Your task to perform on an android device: empty trash in the gmail app Image 0: 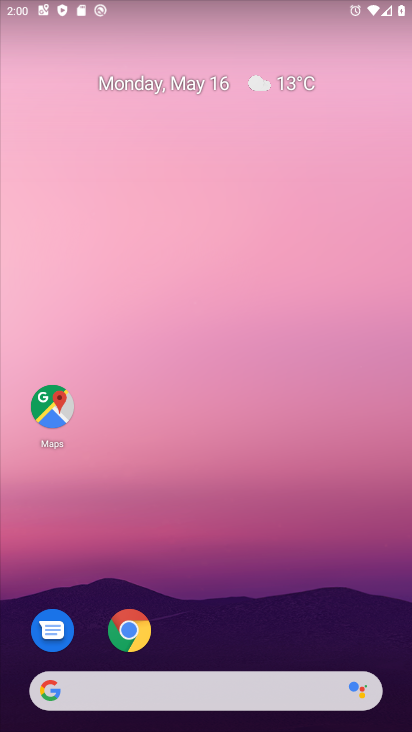
Step 0: click (275, 597)
Your task to perform on an android device: empty trash in the gmail app Image 1: 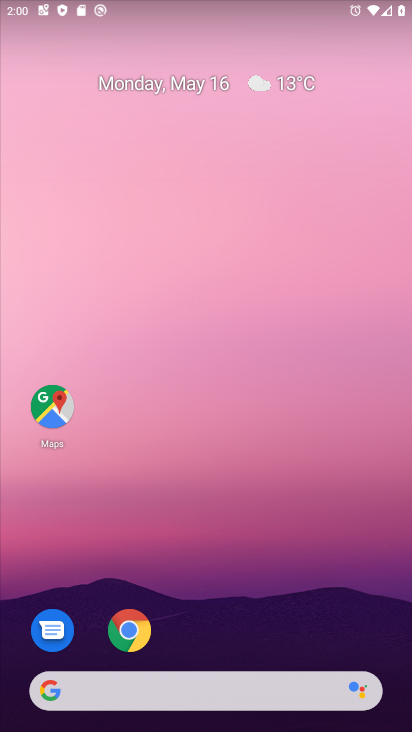
Step 1: click (275, 597)
Your task to perform on an android device: empty trash in the gmail app Image 2: 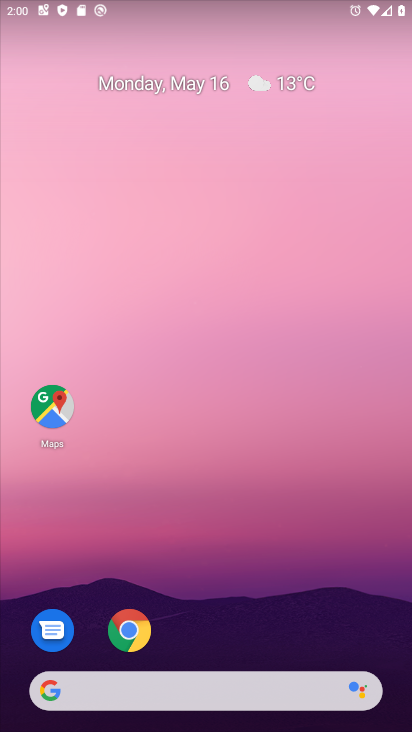
Step 2: drag from (318, 532) to (404, 93)
Your task to perform on an android device: empty trash in the gmail app Image 3: 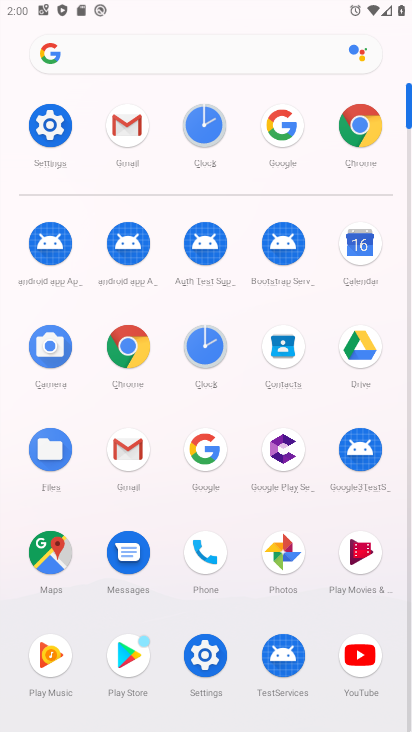
Step 3: click (125, 119)
Your task to perform on an android device: empty trash in the gmail app Image 4: 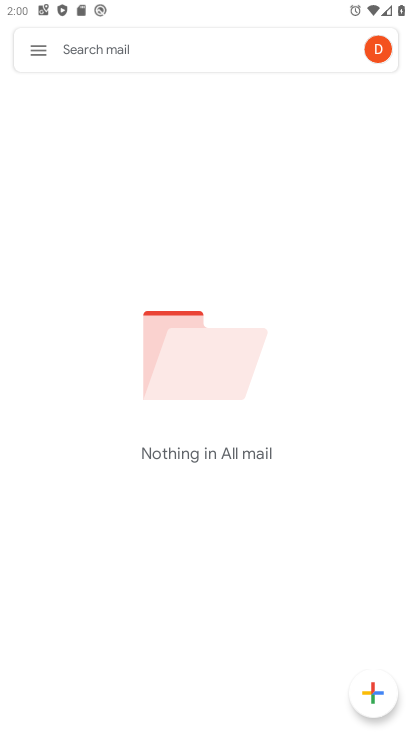
Step 4: click (37, 31)
Your task to perform on an android device: empty trash in the gmail app Image 5: 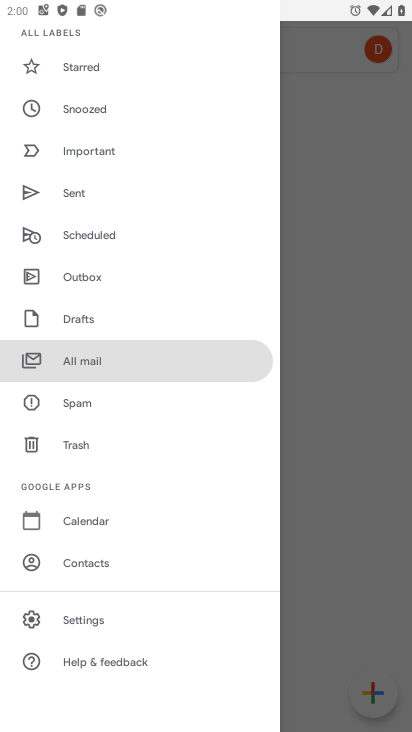
Step 5: click (81, 438)
Your task to perform on an android device: empty trash in the gmail app Image 6: 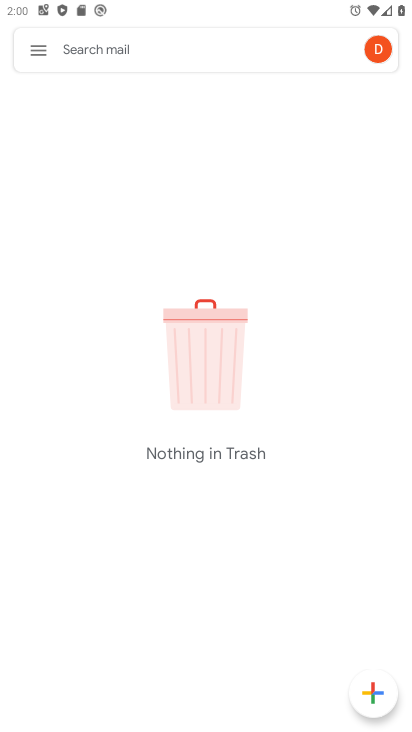
Step 6: task complete